Your task to perform on an android device: read, delete, or share a saved page in the chrome app Image 0: 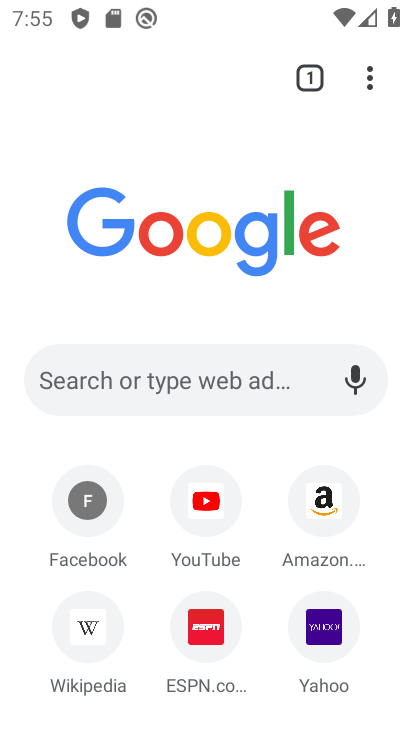
Step 0: drag from (370, 81) to (125, 463)
Your task to perform on an android device: read, delete, or share a saved page in the chrome app Image 1: 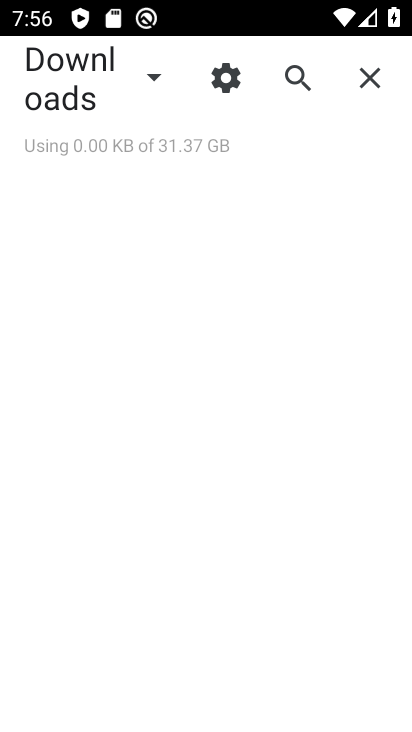
Step 1: click (149, 69)
Your task to perform on an android device: read, delete, or share a saved page in the chrome app Image 2: 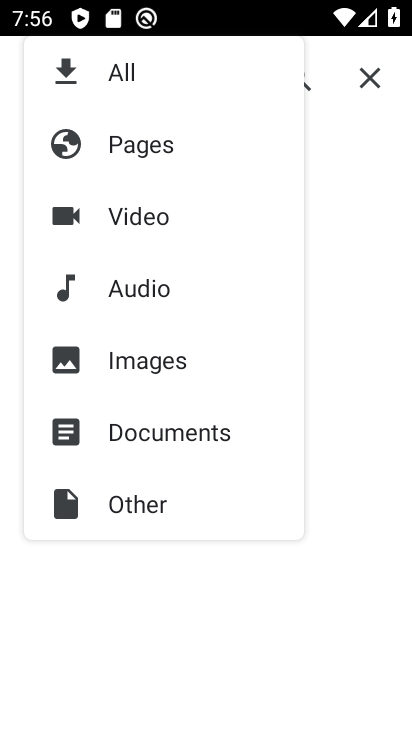
Step 2: click (140, 139)
Your task to perform on an android device: read, delete, or share a saved page in the chrome app Image 3: 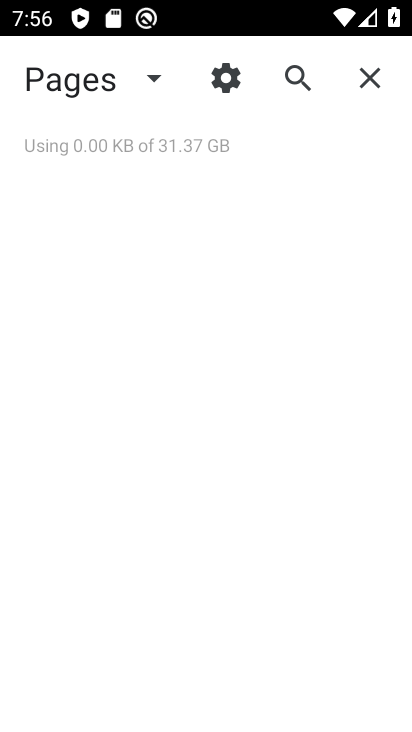
Step 3: task complete